Your task to perform on an android device: check battery use Image 0: 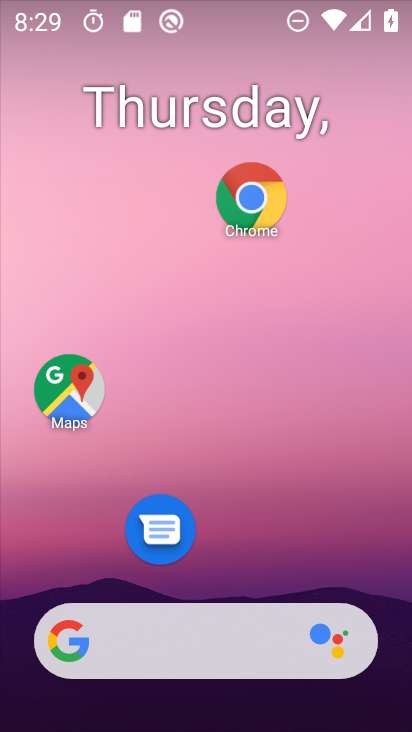
Step 0: drag from (248, 569) to (232, 29)
Your task to perform on an android device: check battery use Image 1: 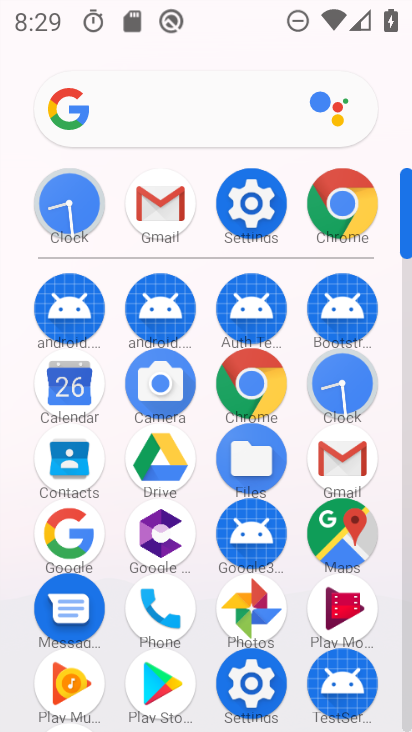
Step 1: click (249, 208)
Your task to perform on an android device: check battery use Image 2: 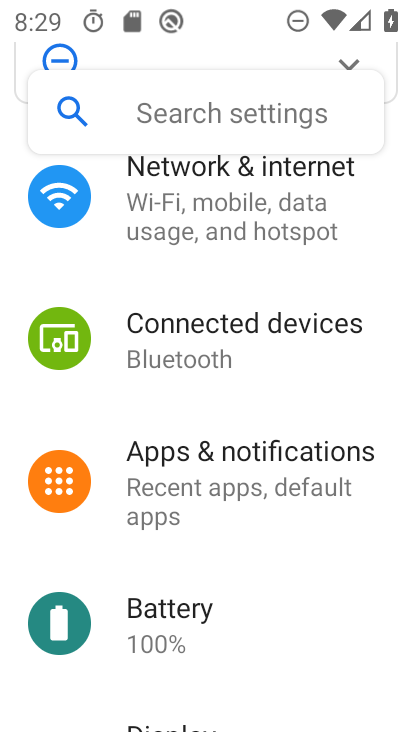
Step 2: click (129, 652)
Your task to perform on an android device: check battery use Image 3: 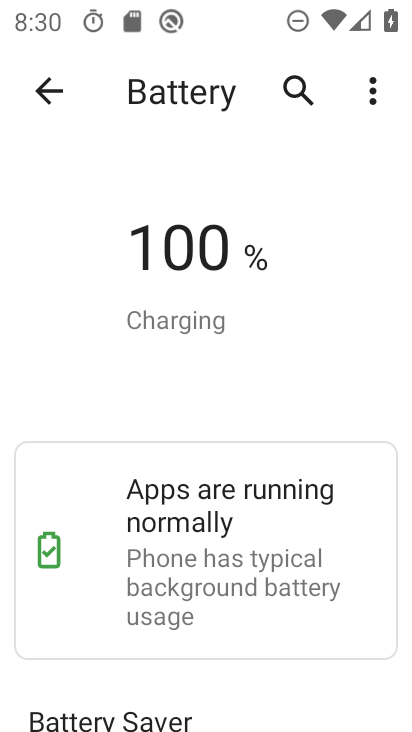
Step 3: task complete